Your task to perform on an android device: Go to settings Image 0: 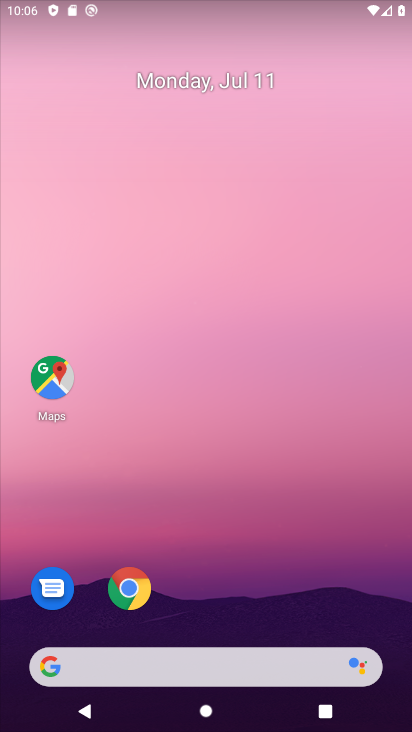
Step 0: drag from (257, 525) to (183, 188)
Your task to perform on an android device: Go to settings Image 1: 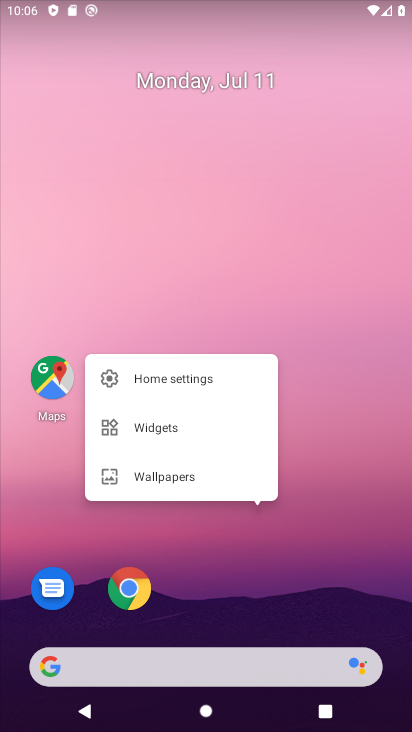
Step 1: click (186, 194)
Your task to perform on an android device: Go to settings Image 2: 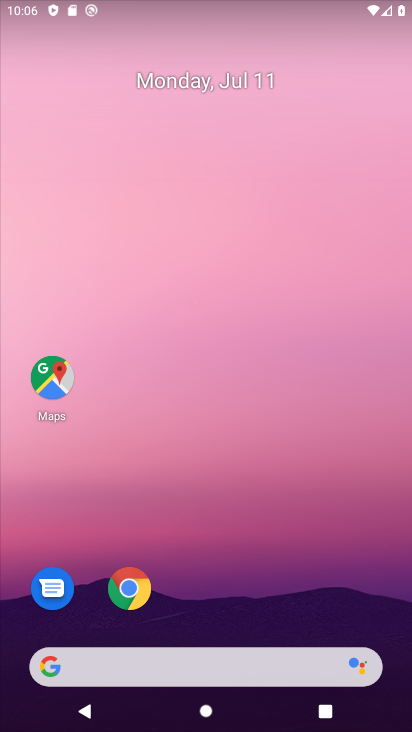
Step 2: drag from (203, 563) to (171, 171)
Your task to perform on an android device: Go to settings Image 3: 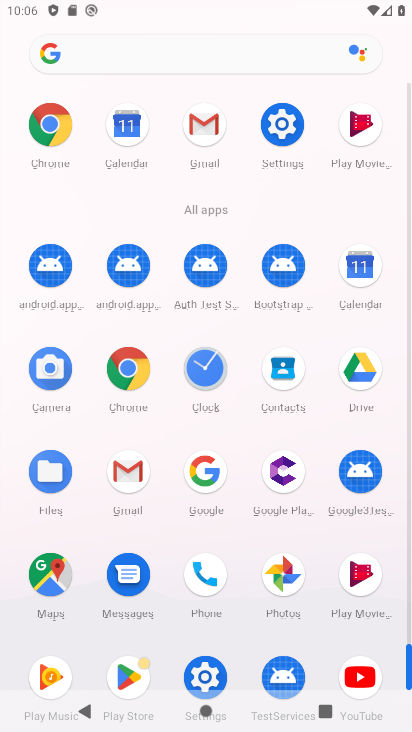
Step 3: click (281, 120)
Your task to perform on an android device: Go to settings Image 4: 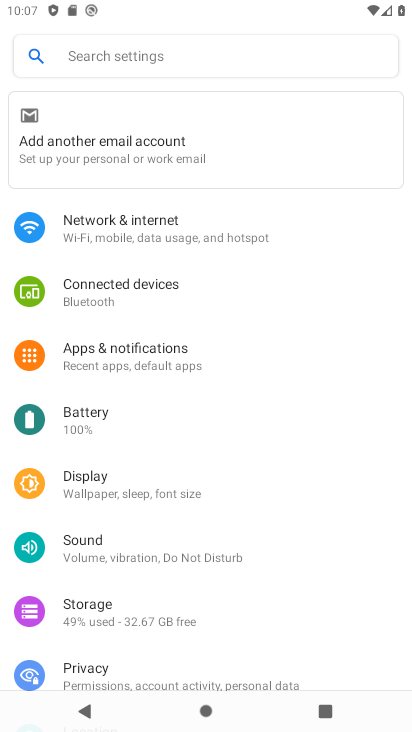
Step 4: task complete